Your task to perform on an android device: Open accessibility settings Image 0: 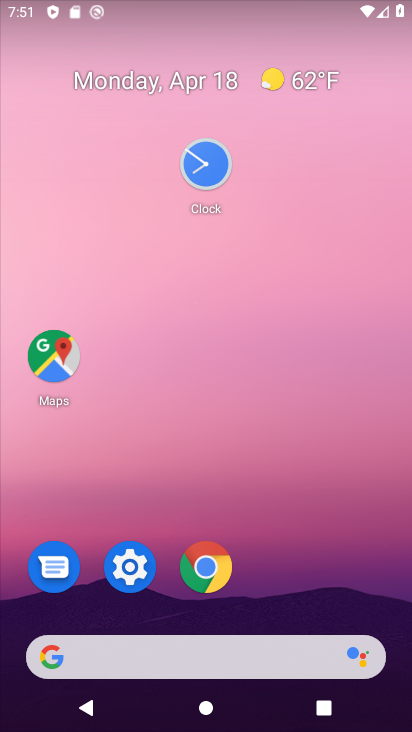
Step 0: drag from (251, 671) to (139, 58)
Your task to perform on an android device: Open accessibility settings Image 1: 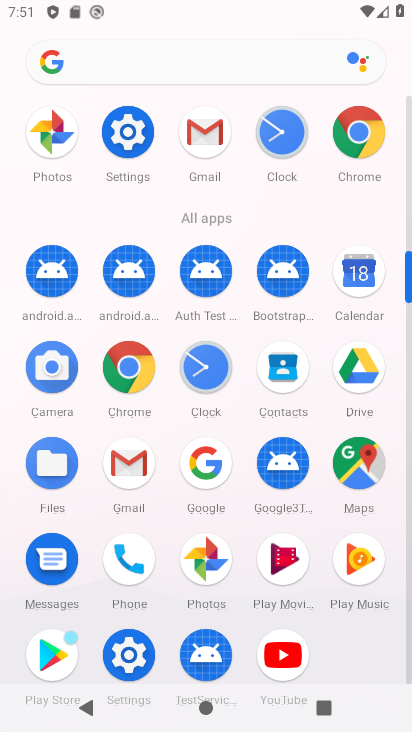
Step 1: click (128, 643)
Your task to perform on an android device: Open accessibility settings Image 2: 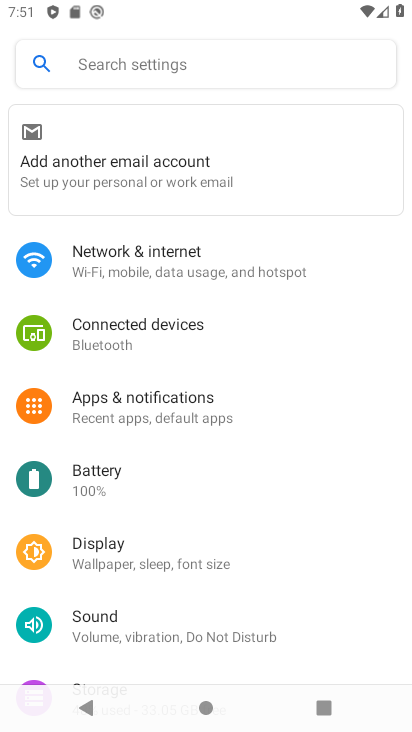
Step 2: drag from (302, 378) to (306, 82)
Your task to perform on an android device: Open accessibility settings Image 3: 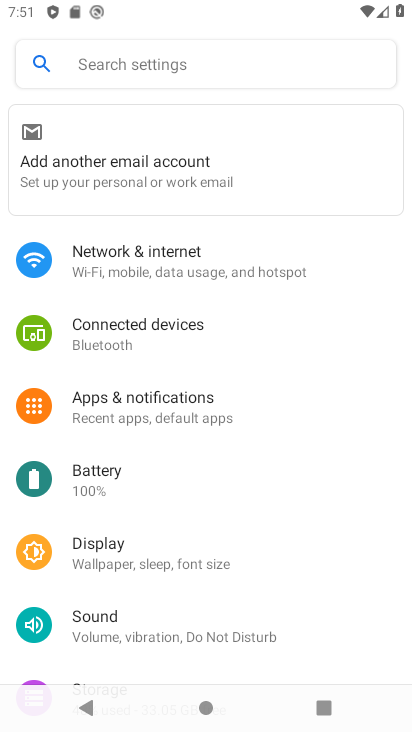
Step 3: drag from (248, 528) to (235, 63)
Your task to perform on an android device: Open accessibility settings Image 4: 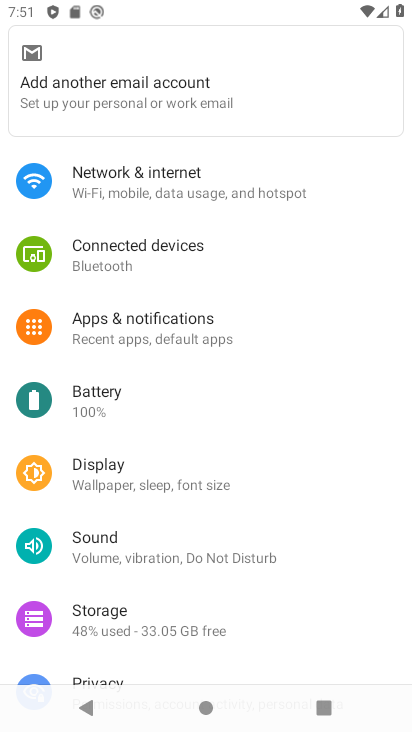
Step 4: drag from (217, 553) to (199, 94)
Your task to perform on an android device: Open accessibility settings Image 5: 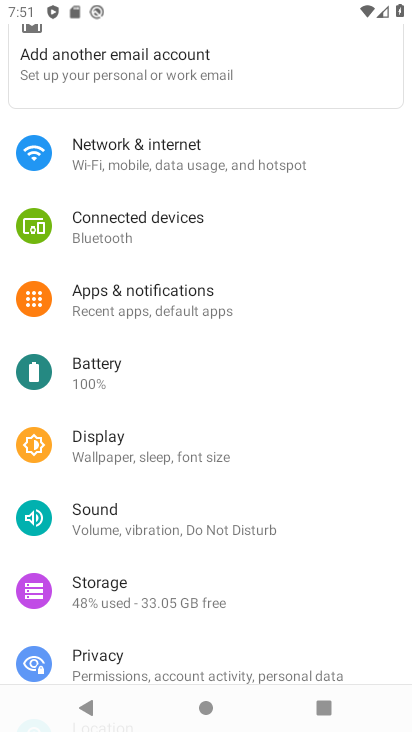
Step 5: drag from (197, 553) to (180, 26)
Your task to perform on an android device: Open accessibility settings Image 6: 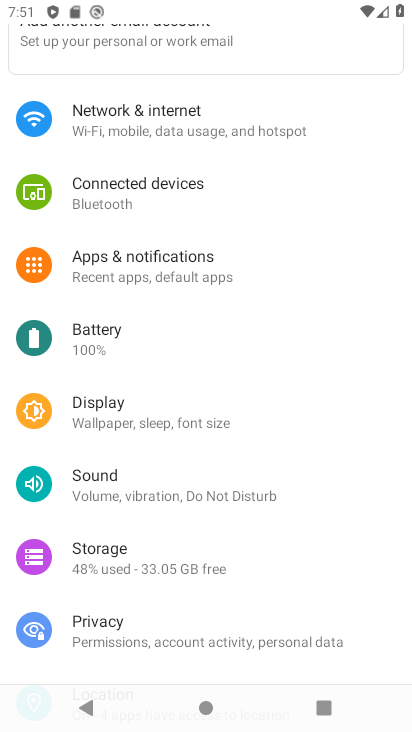
Step 6: drag from (148, 451) to (151, 0)
Your task to perform on an android device: Open accessibility settings Image 7: 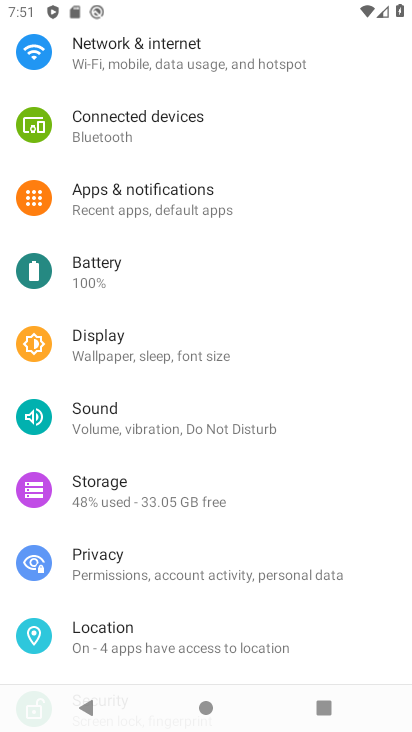
Step 7: drag from (211, 318) to (155, 0)
Your task to perform on an android device: Open accessibility settings Image 8: 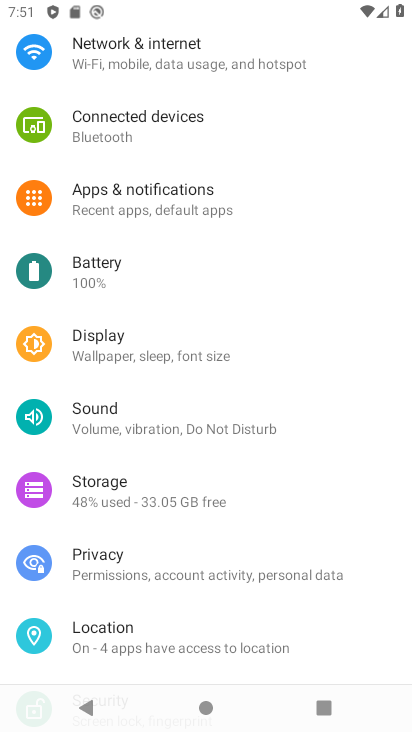
Step 8: drag from (252, 606) to (233, 55)
Your task to perform on an android device: Open accessibility settings Image 9: 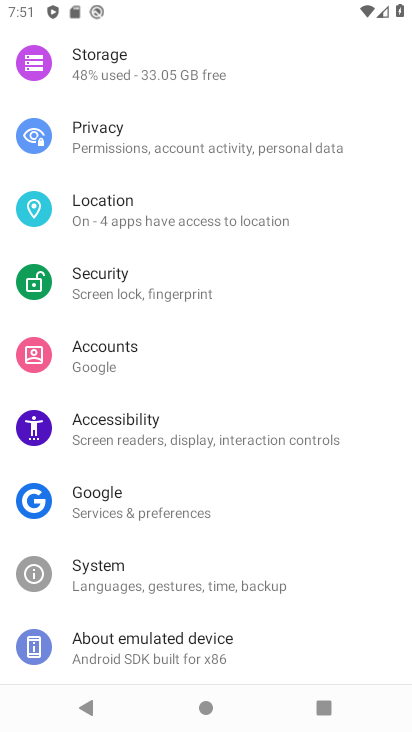
Step 9: drag from (253, 484) to (230, 280)
Your task to perform on an android device: Open accessibility settings Image 10: 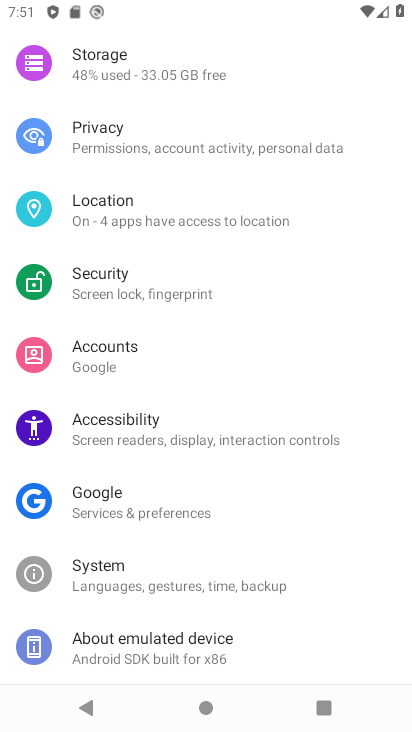
Step 10: click (147, 428)
Your task to perform on an android device: Open accessibility settings Image 11: 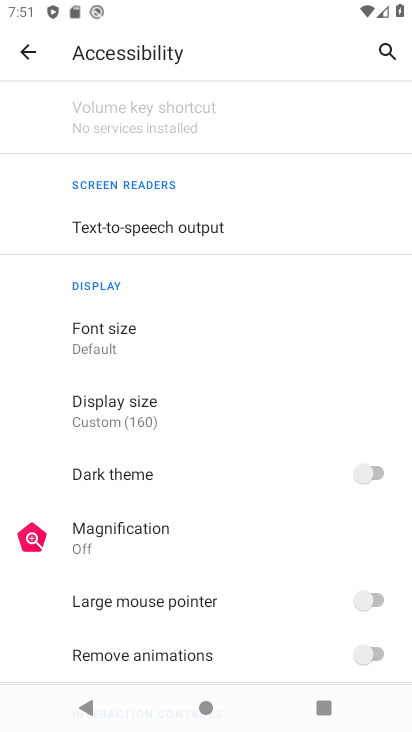
Step 11: task complete